Your task to perform on an android device: turn off picture-in-picture Image 0: 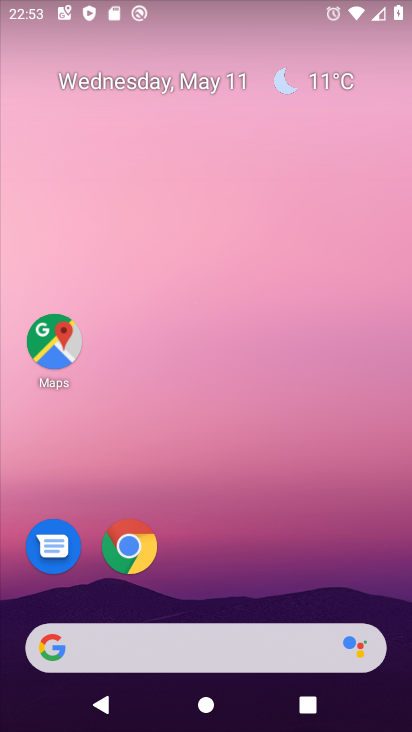
Step 0: press home button
Your task to perform on an android device: turn off picture-in-picture Image 1: 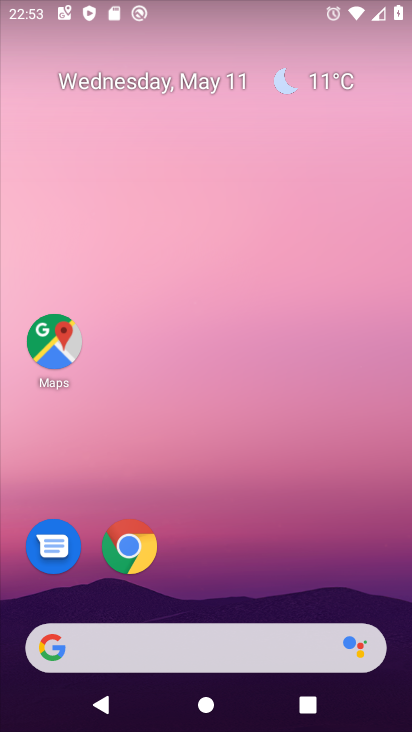
Step 1: drag from (399, 637) to (295, 133)
Your task to perform on an android device: turn off picture-in-picture Image 2: 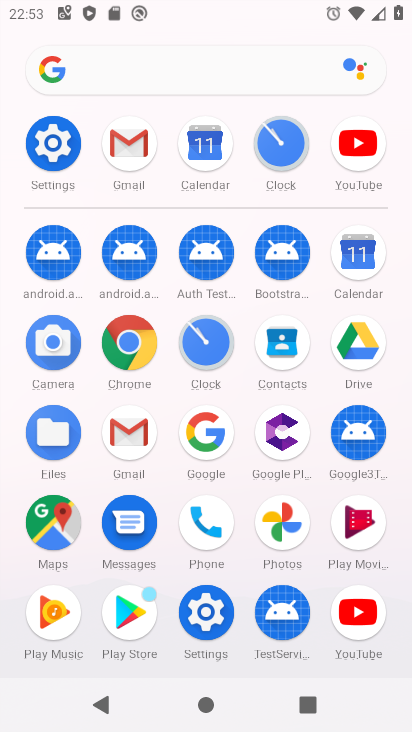
Step 2: click (206, 614)
Your task to perform on an android device: turn off picture-in-picture Image 3: 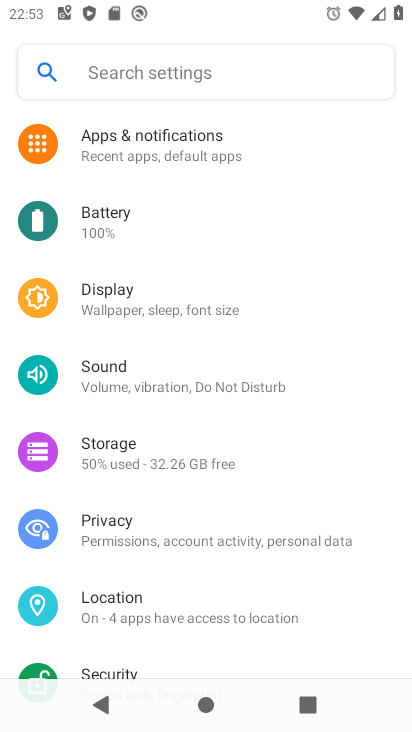
Step 3: click (154, 144)
Your task to perform on an android device: turn off picture-in-picture Image 4: 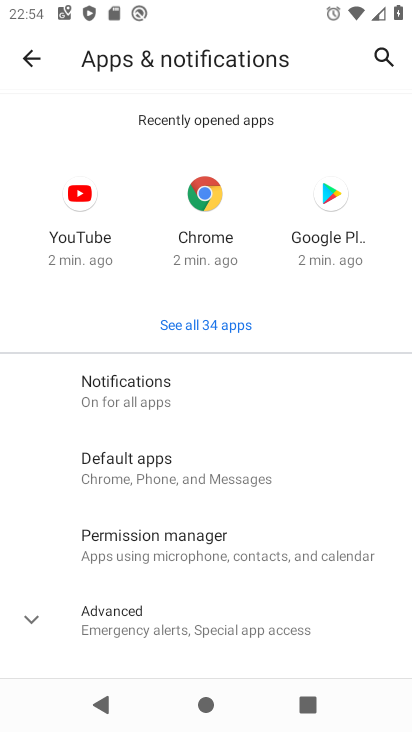
Step 4: click (27, 618)
Your task to perform on an android device: turn off picture-in-picture Image 5: 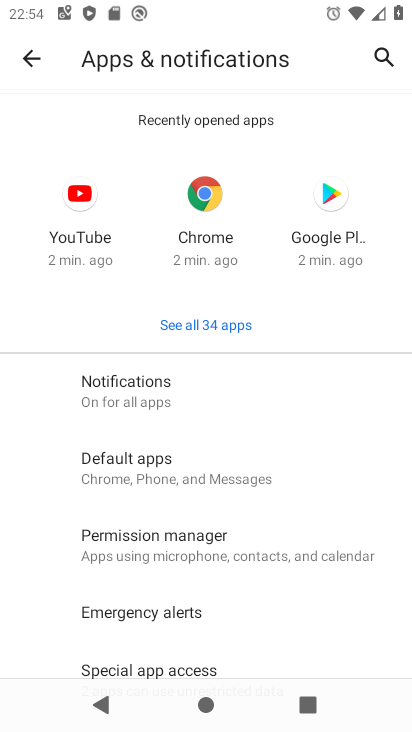
Step 5: drag from (276, 664) to (279, 260)
Your task to perform on an android device: turn off picture-in-picture Image 6: 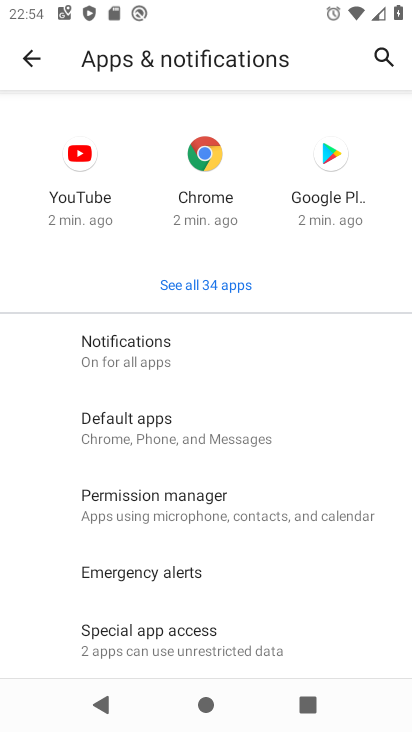
Step 6: click (123, 640)
Your task to perform on an android device: turn off picture-in-picture Image 7: 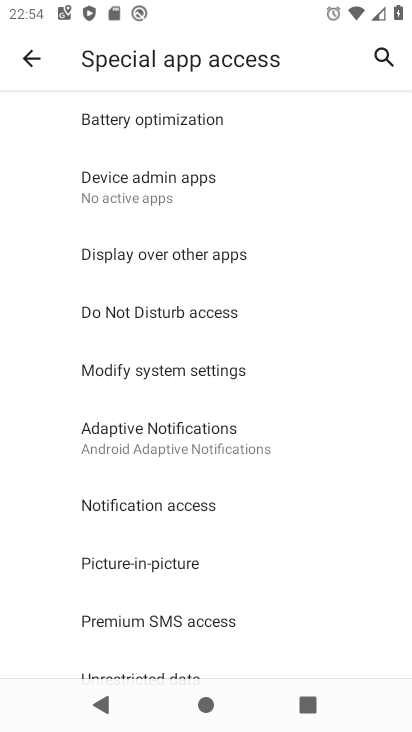
Step 7: click (131, 560)
Your task to perform on an android device: turn off picture-in-picture Image 8: 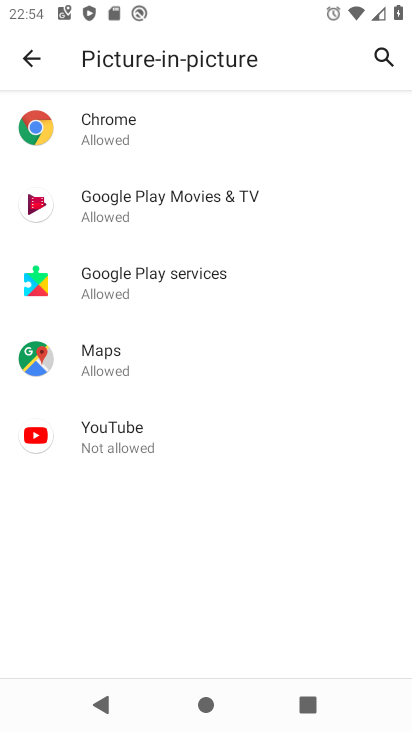
Step 8: click (93, 352)
Your task to perform on an android device: turn off picture-in-picture Image 9: 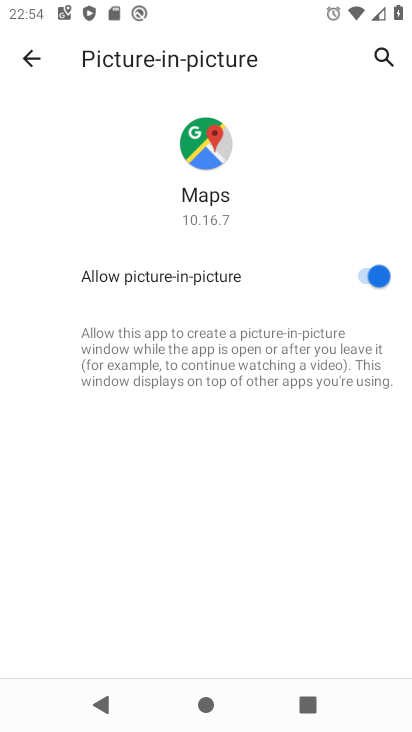
Step 9: click (360, 270)
Your task to perform on an android device: turn off picture-in-picture Image 10: 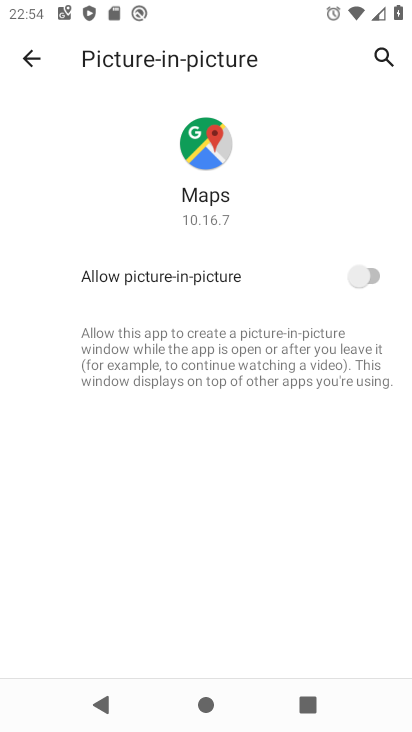
Step 10: task complete